Your task to perform on an android device: refresh tabs in the chrome app Image 0: 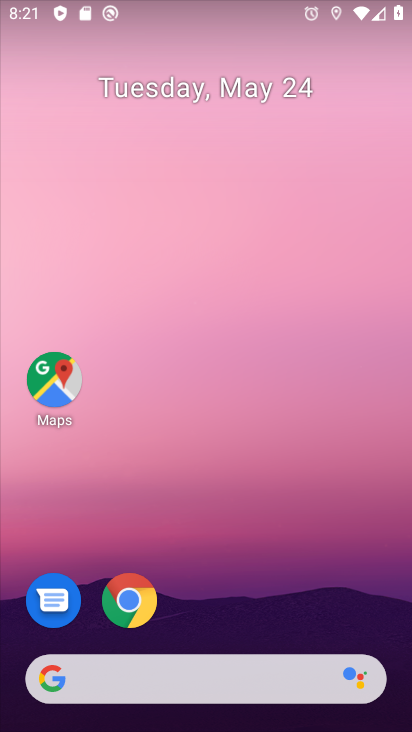
Step 0: click (120, 604)
Your task to perform on an android device: refresh tabs in the chrome app Image 1: 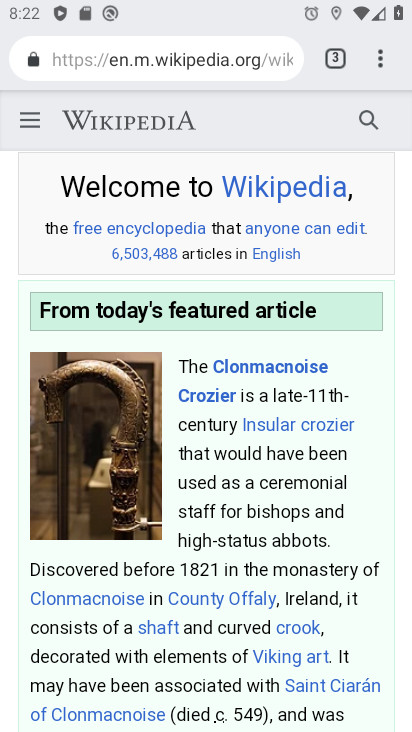
Step 1: click (380, 64)
Your task to perform on an android device: refresh tabs in the chrome app Image 2: 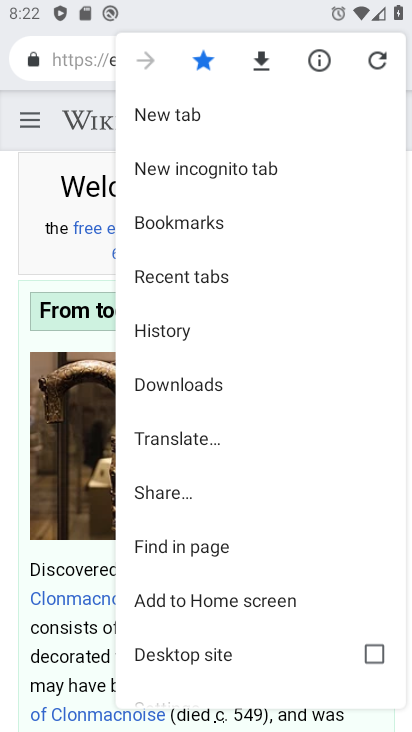
Step 2: click (374, 65)
Your task to perform on an android device: refresh tabs in the chrome app Image 3: 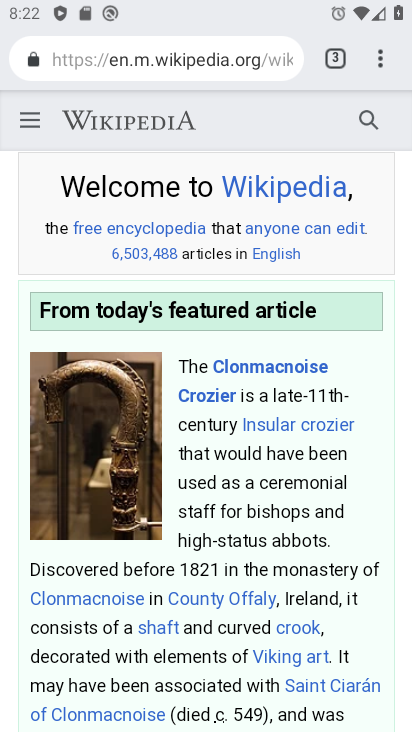
Step 3: task complete